Your task to perform on an android device: Open ESPN.com Image 0: 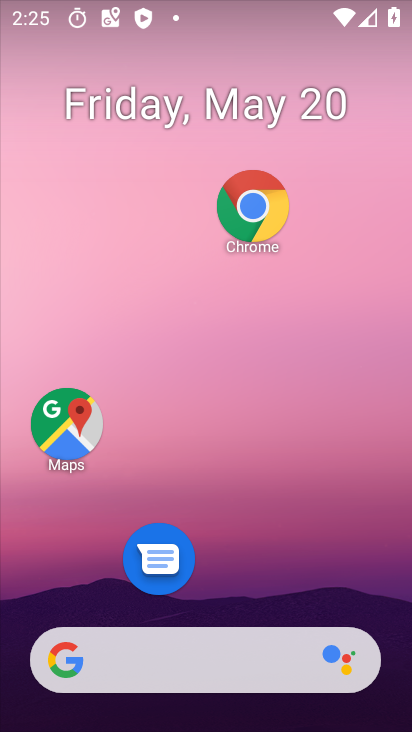
Step 0: drag from (225, 620) to (198, 90)
Your task to perform on an android device: Open ESPN.com Image 1: 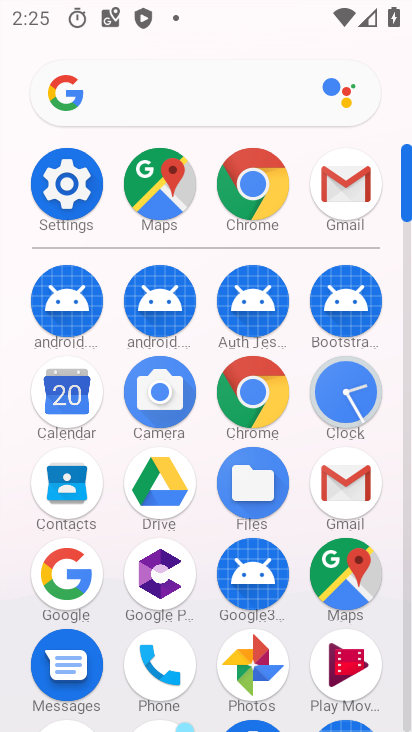
Step 1: click (260, 203)
Your task to perform on an android device: Open ESPN.com Image 2: 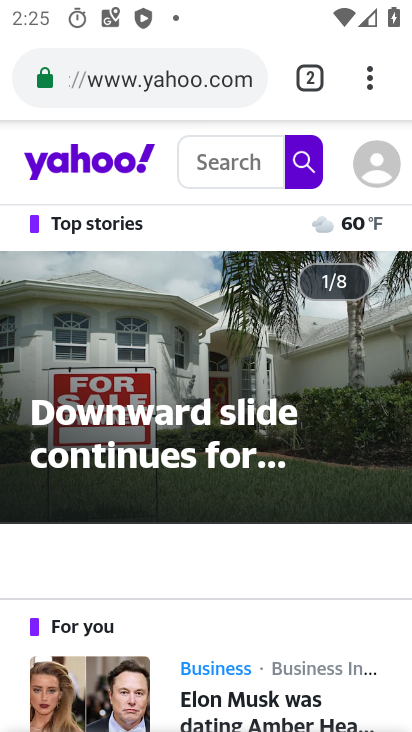
Step 2: click (297, 76)
Your task to perform on an android device: Open ESPN.com Image 3: 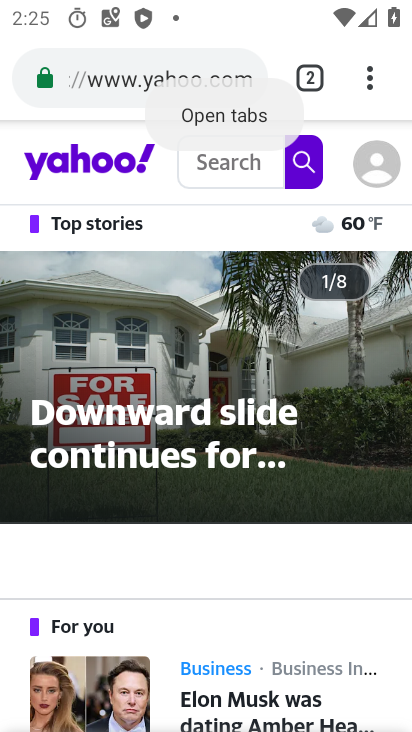
Step 3: click (306, 80)
Your task to perform on an android device: Open ESPN.com Image 4: 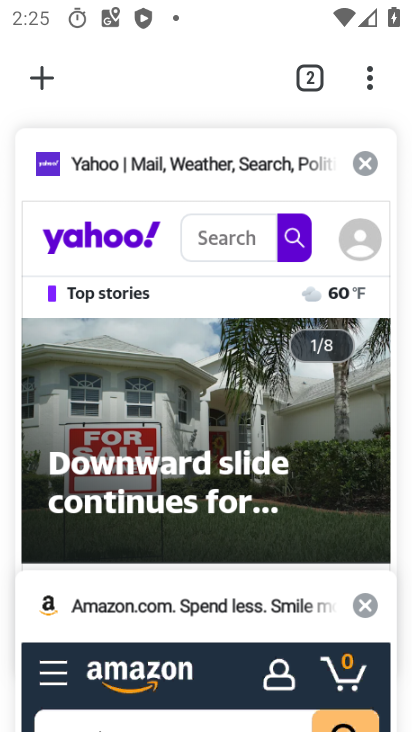
Step 4: click (19, 85)
Your task to perform on an android device: Open ESPN.com Image 5: 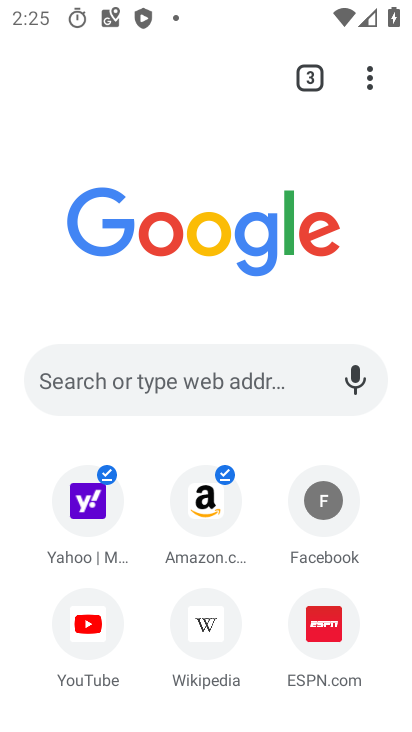
Step 5: click (303, 626)
Your task to perform on an android device: Open ESPN.com Image 6: 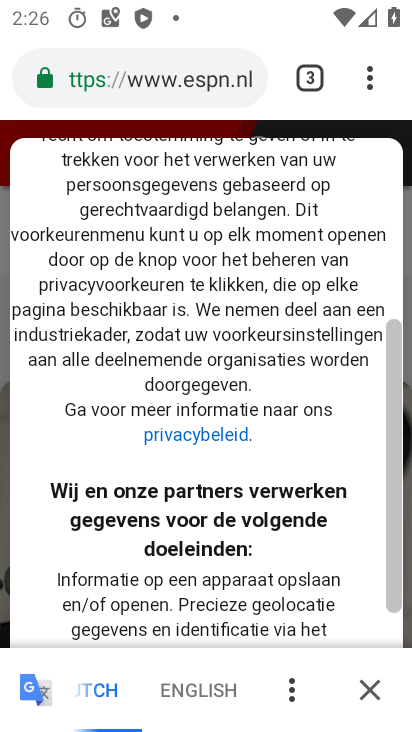
Step 6: drag from (267, 508) to (235, 64)
Your task to perform on an android device: Open ESPN.com Image 7: 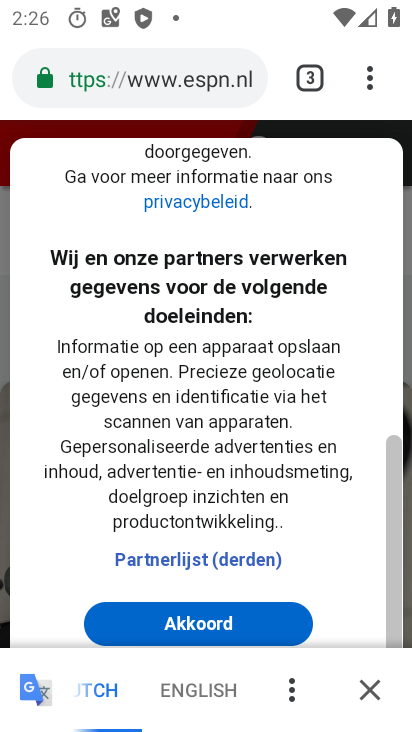
Step 7: click (214, 600)
Your task to perform on an android device: Open ESPN.com Image 8: 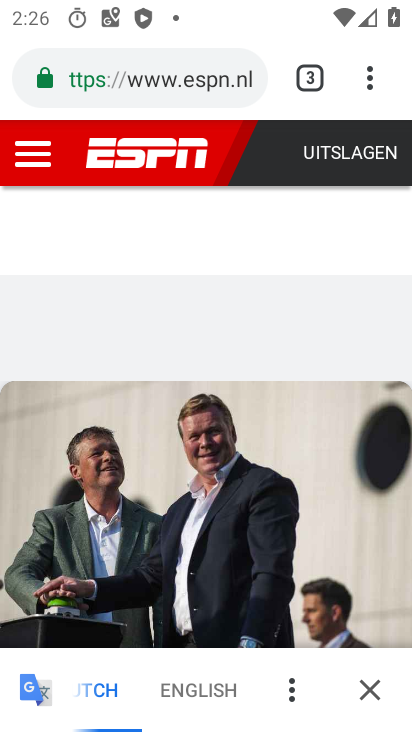
Step 8: task complete